Your task to perform on an android device: Open Google Image 0: 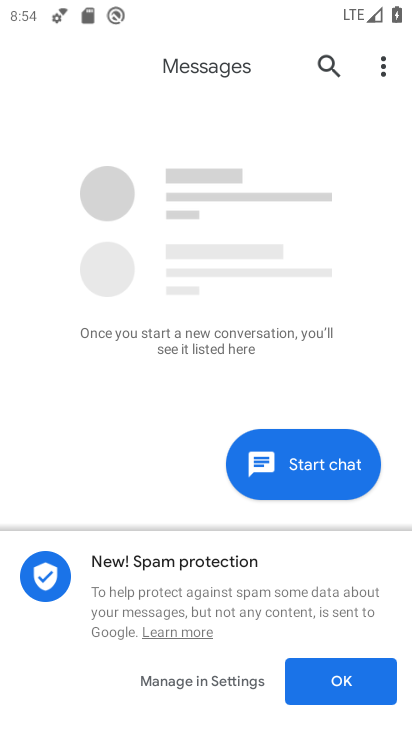
Step 0: press home button
Your task to perform on an android device: Open Google Image 1: 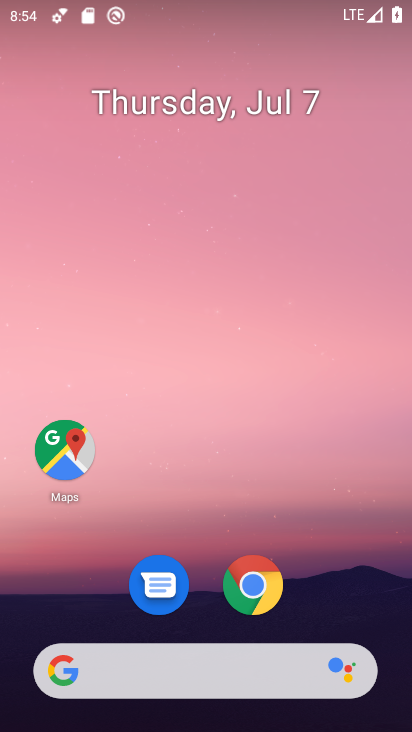
Step 1: drag from (203, 344) to (186, 16)
Your task to perform on an android device: Open Google Image 2: 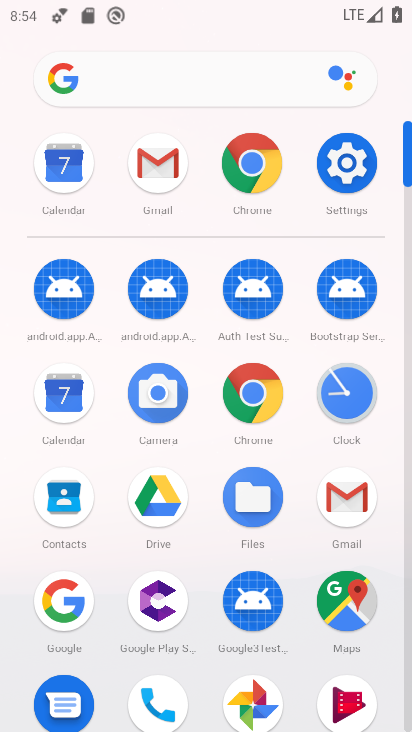
Step 2: click (68, 588)
Your task to perform on an android device: Open Google Image 3: 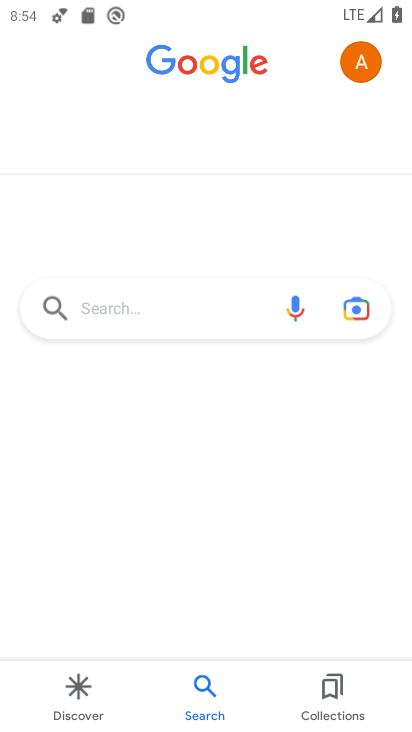
Step 3: click (150, 312)
Your task to perform on an android device: Open Google Image 4: 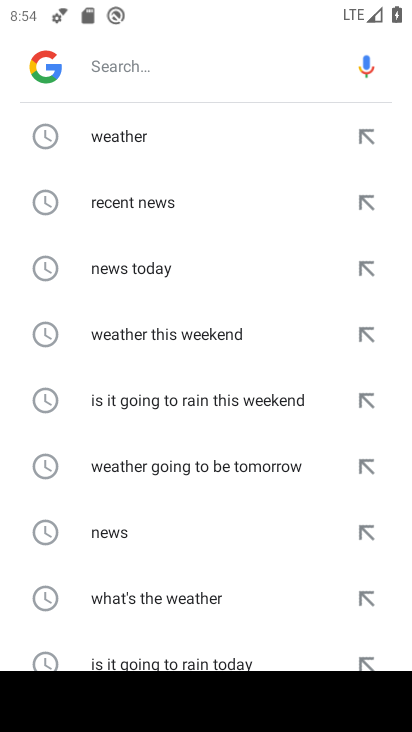
Step 4: task complete